Your task to perform on an android device: change the clock style Image 0: 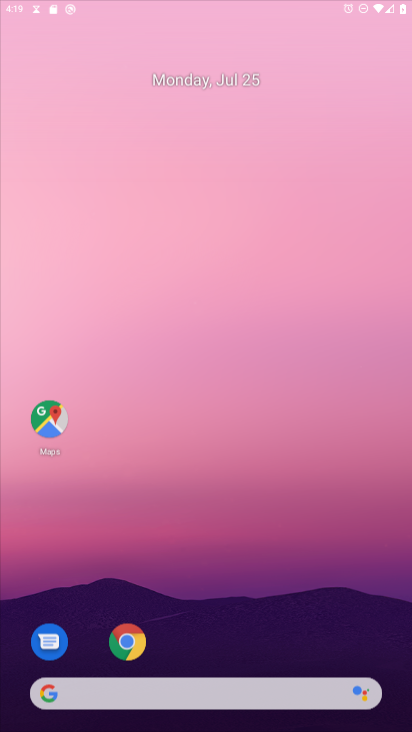
Step 0: press home button
Your task to perform on an android device: change the clock style Image 1: 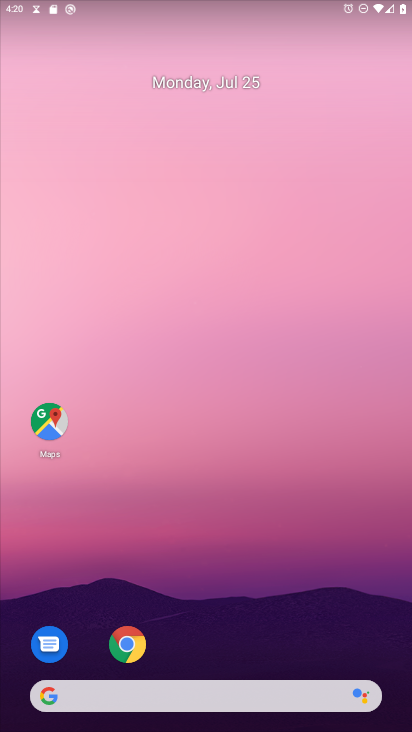
Step 1: drag from (279, 623) to (261, 41)
Your task to perform on an android device: change the clock style Image 2: 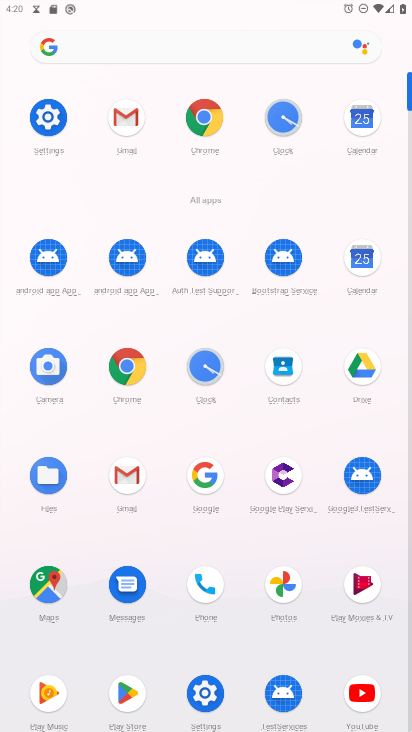
Step 2: click (288, 104)
Your task to perform on an android device: change the clock style Image 3: 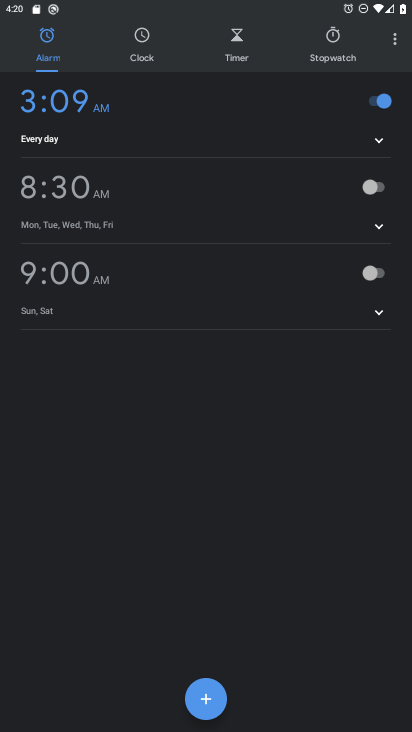
Step 3: click (393, 44)
Your task to perform on an android device: change the clock style Image 4: 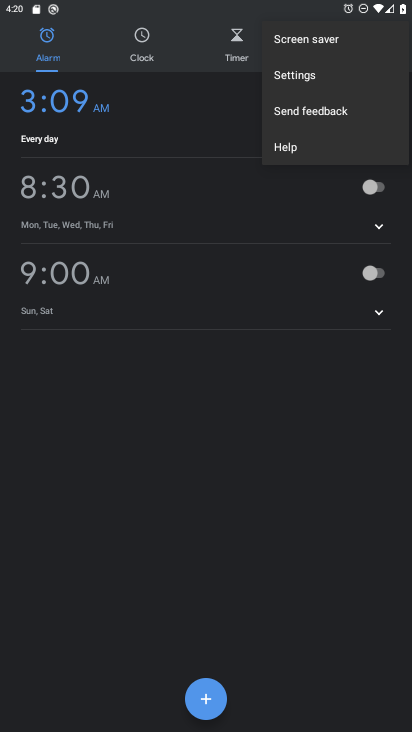
Step 4: click (287, 79)
Your task to perform on an android device: change the clock style Image 5: 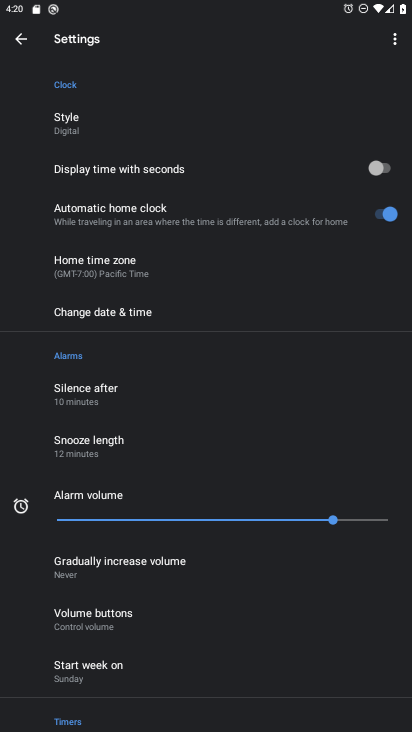
Step 5: click (75, 125)
Your task to perform on an android device: change the clock style Image 6: 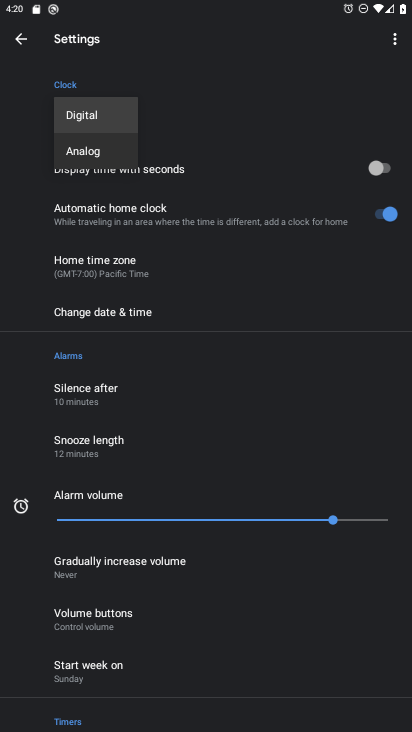
Step 6: click (88, 145)
Your task to perform on an android device: change the clock style Image 7: 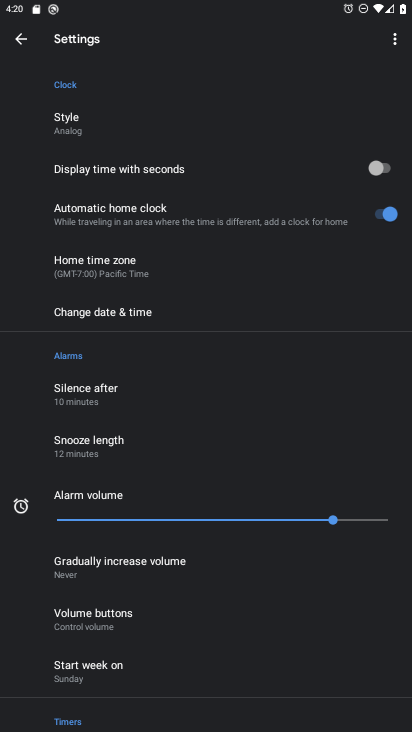
Step 7: task complete